Your task to perform on an android device: When is my next meeting? Image 0: 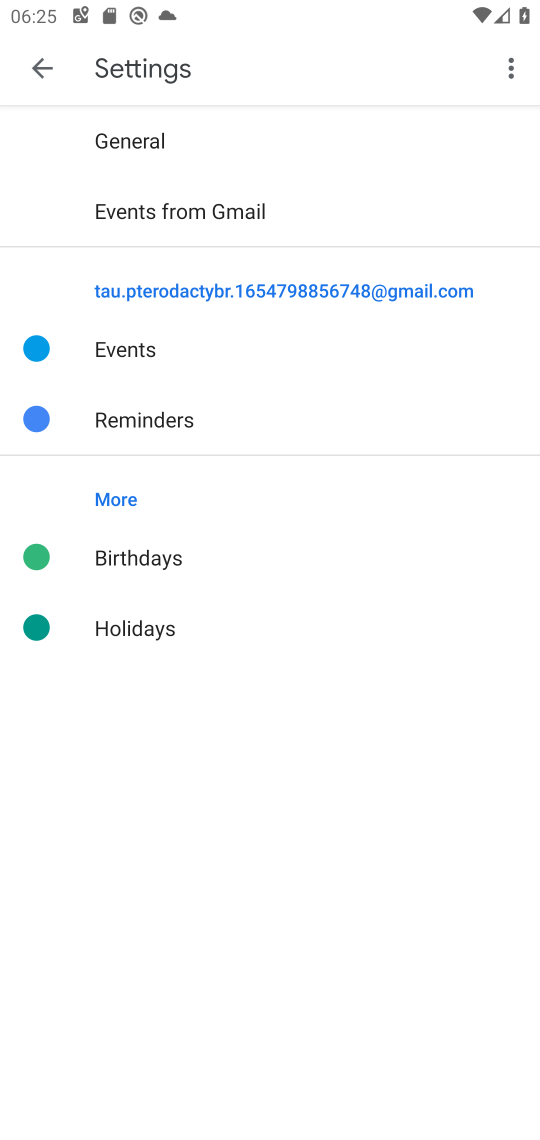
Step 0: press home button
Your task to perform on an android device: When is my next meeting? Image 1: 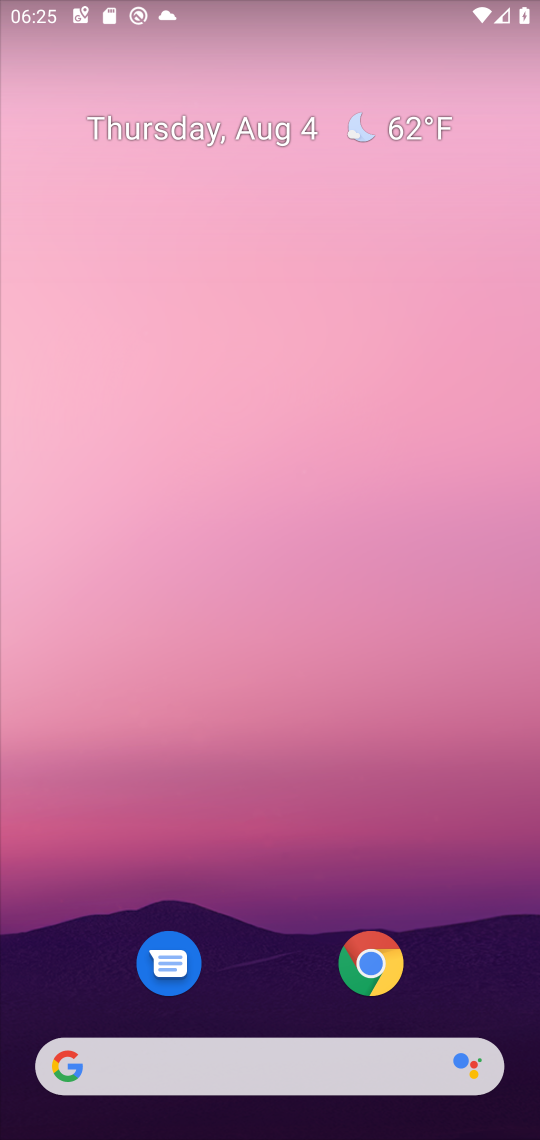
Step 1: drag from (275, 857) to (244, 158)
Your task to perform on an android device: When is my next meeting? Image 2: 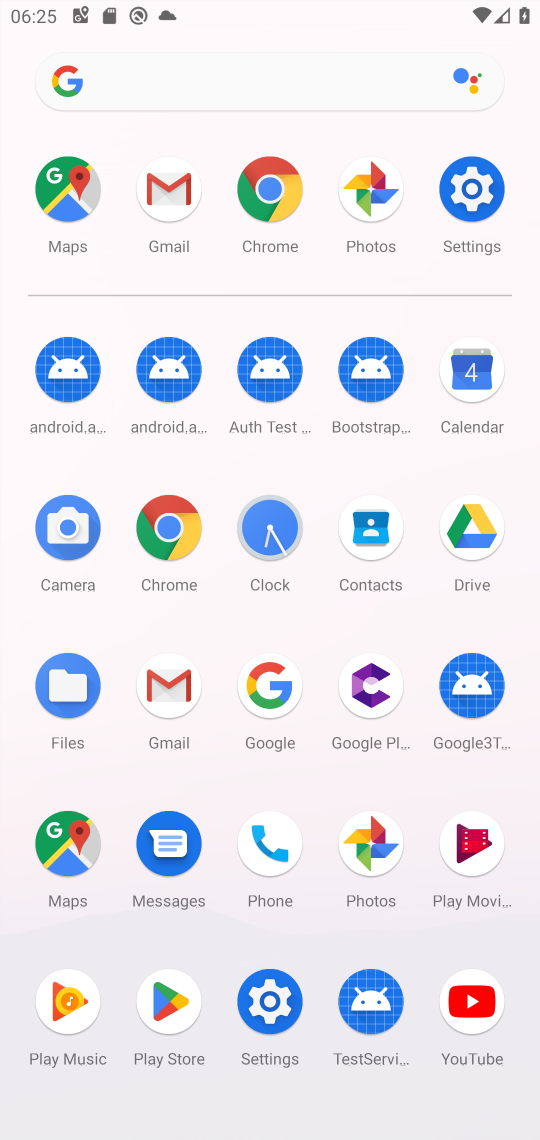
Step 2: click (473, 382)
Your task to perform on an android device: When is my next meeting? Image 3: 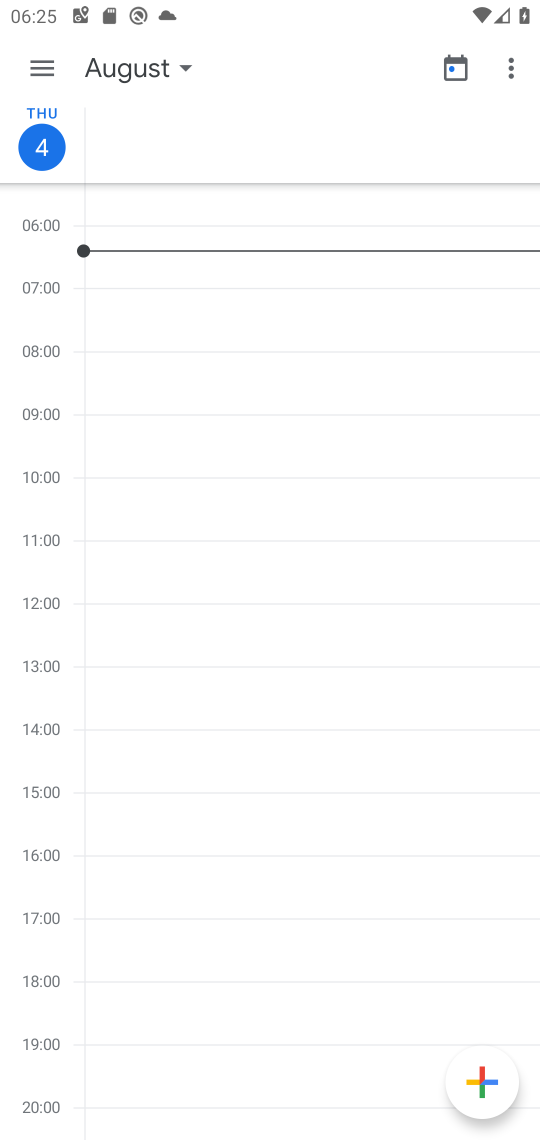
Step 3: click (35, 57)
Your task to perform on an android device: When is my next meeting? Image 4: 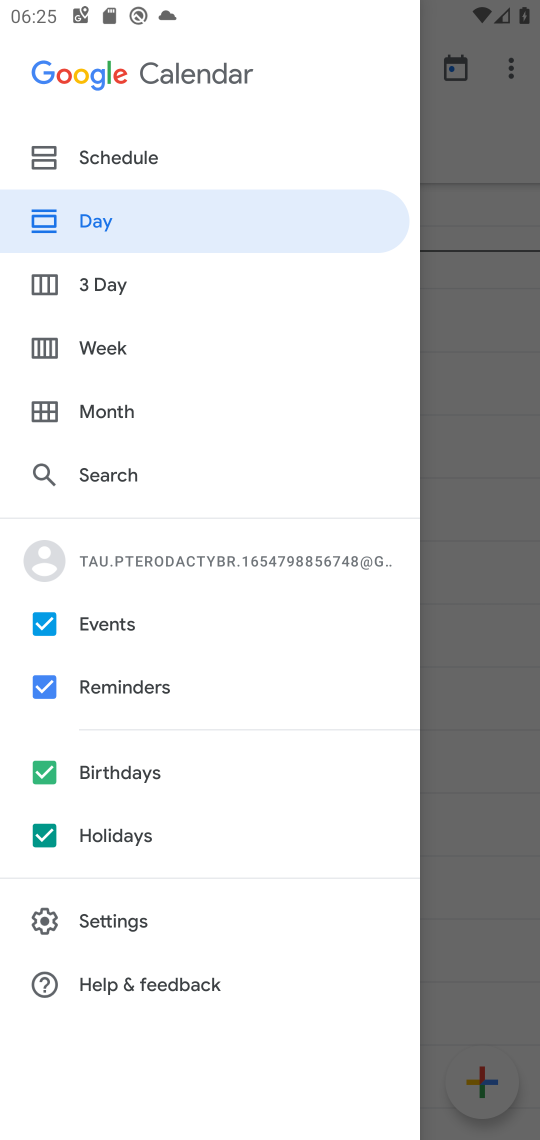
Step 4: click (105, 334)
Your task to perform on an android device: When is my next meeting? Image 5: 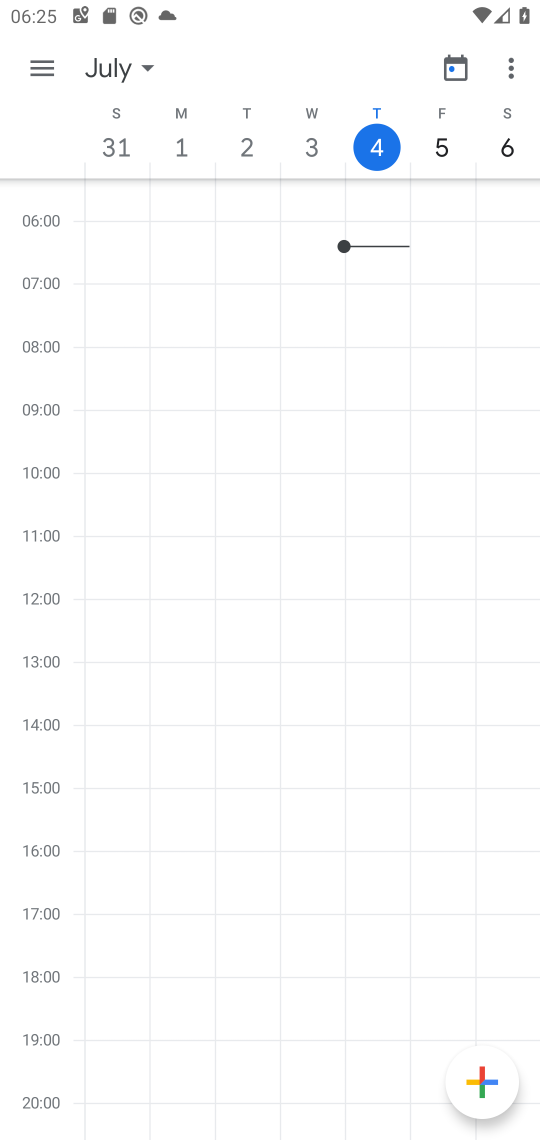
Step 5: task complete